Your task to perform on an android device: open app "Adobe Acrobat Reader" Image 0: 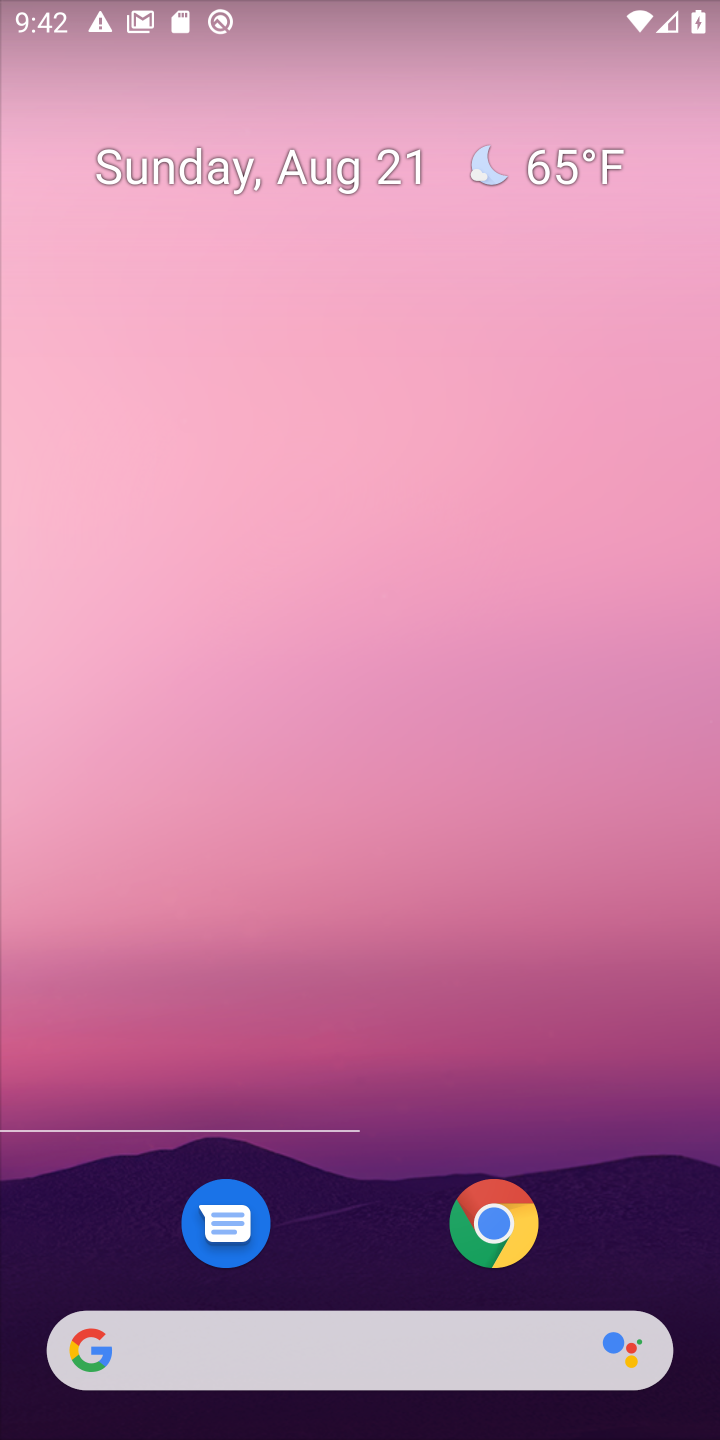
Step 0: press home button
Your task to perform on an android device: open app "Adobe Acrobat Reader" Image 1: 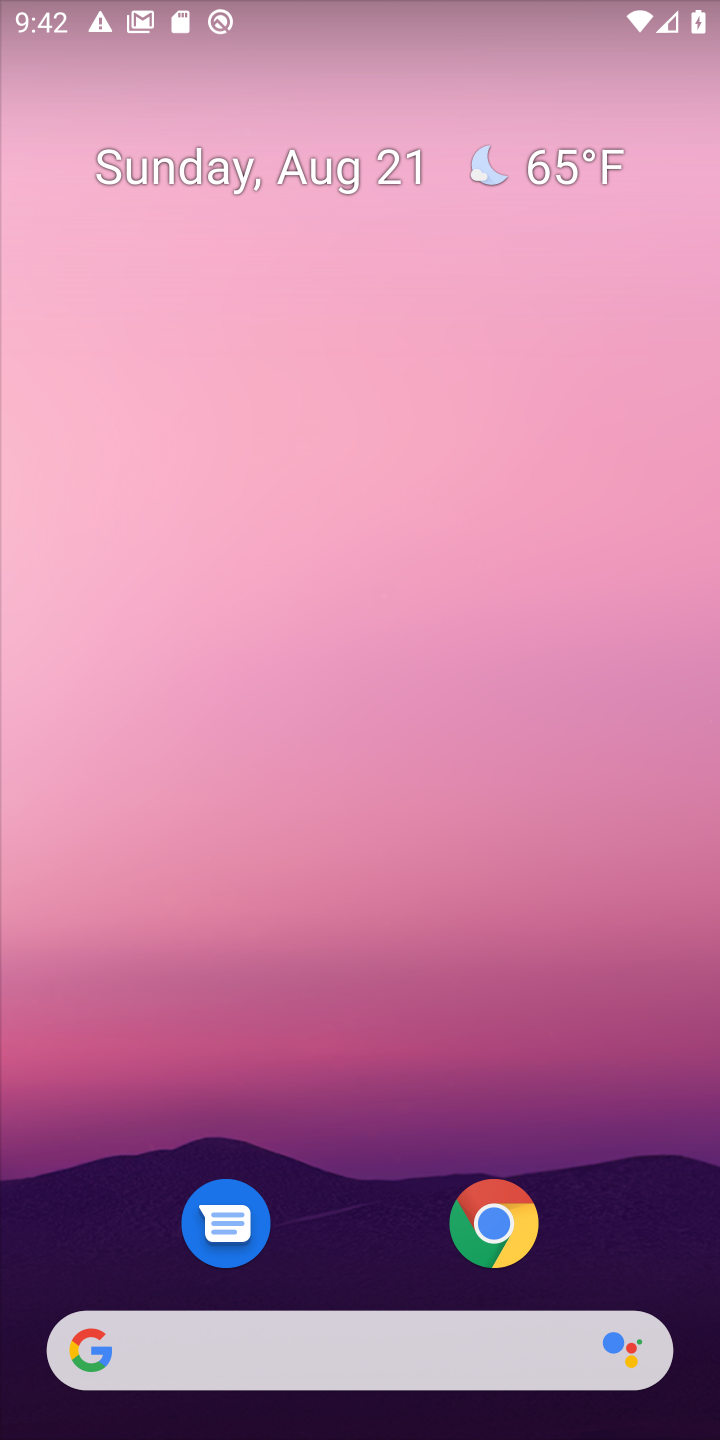
Step 1: drag from (628, 1227) to (677, 111)
Your task to perform on an android device: open app "Adobe Acrobat Reader" Image 2: 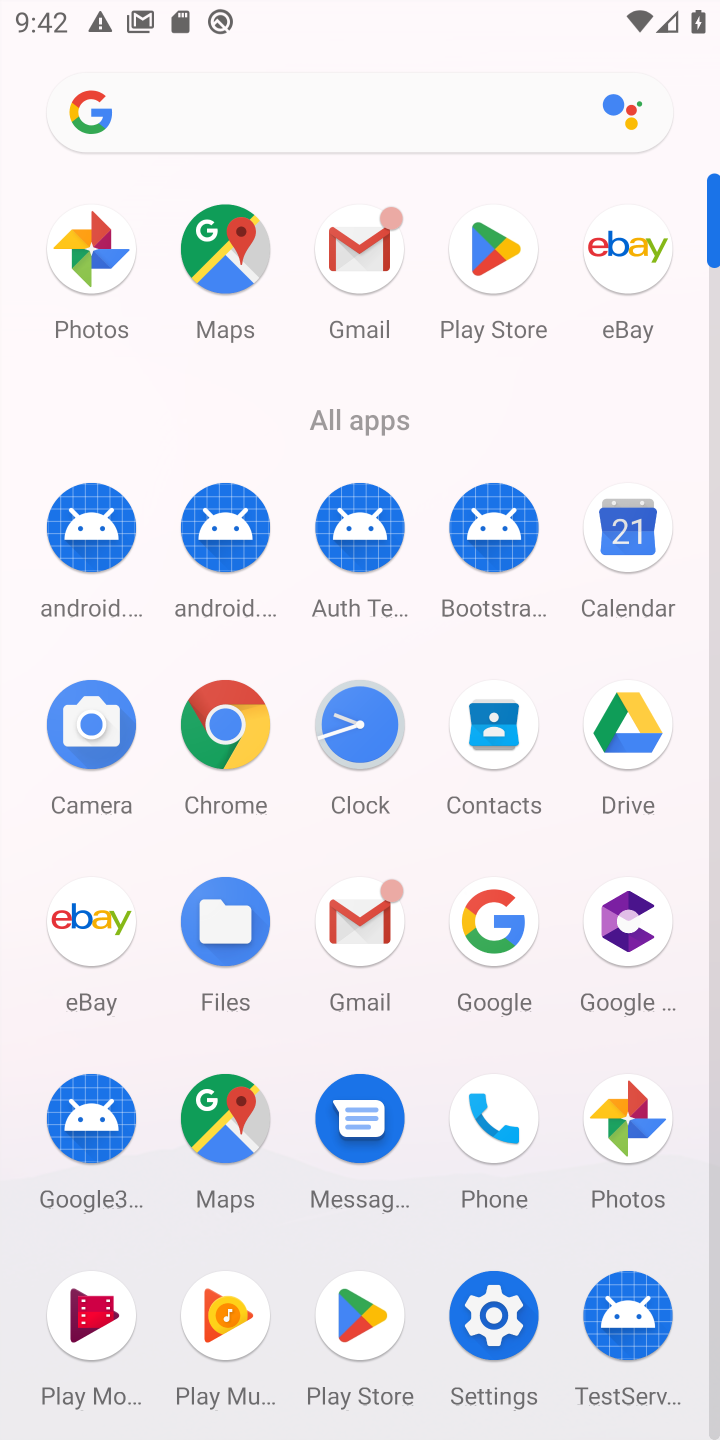
Step 2: click (495, 257)
Your task to perform on an android device: open app "Adobe Acrobat Reader" Image 3: 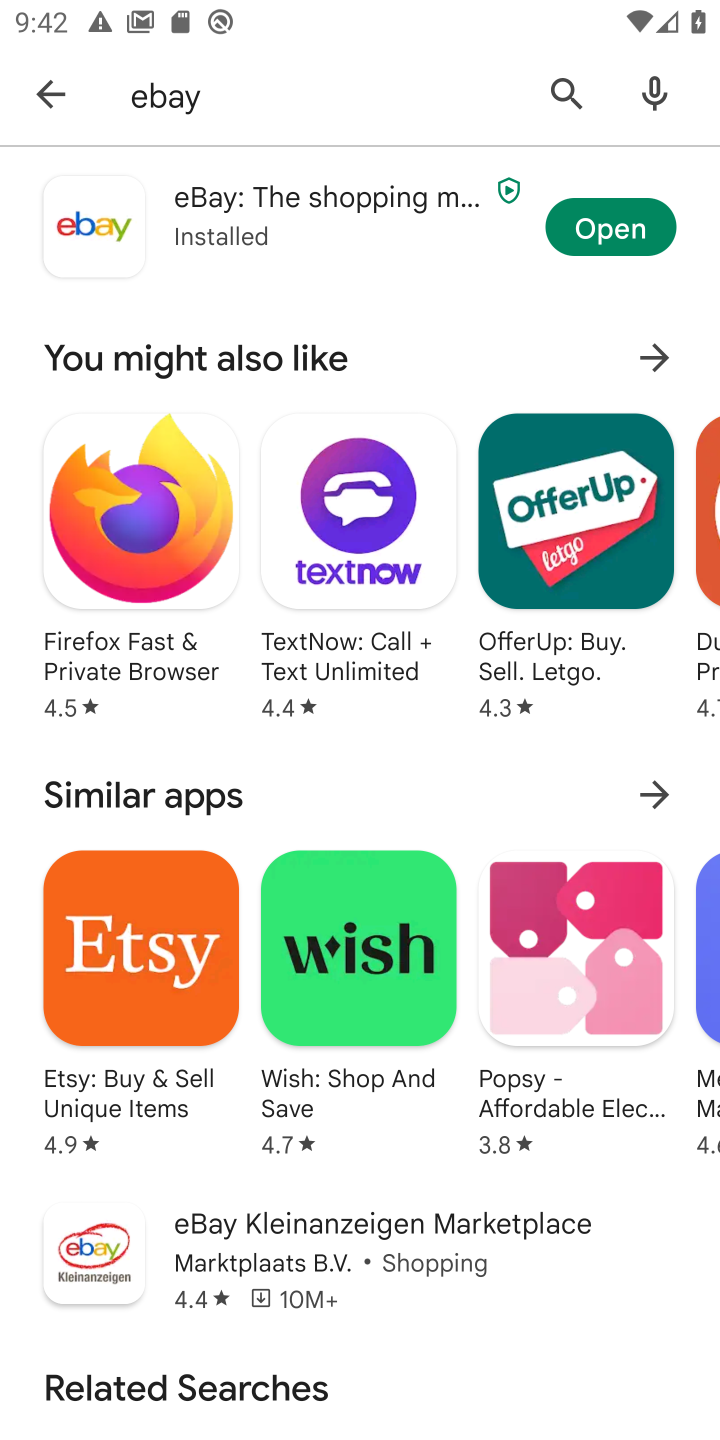
Step 3: press back button
Your task to perform on an android device: open app "Adobe Acrobat Reader" Image 4: 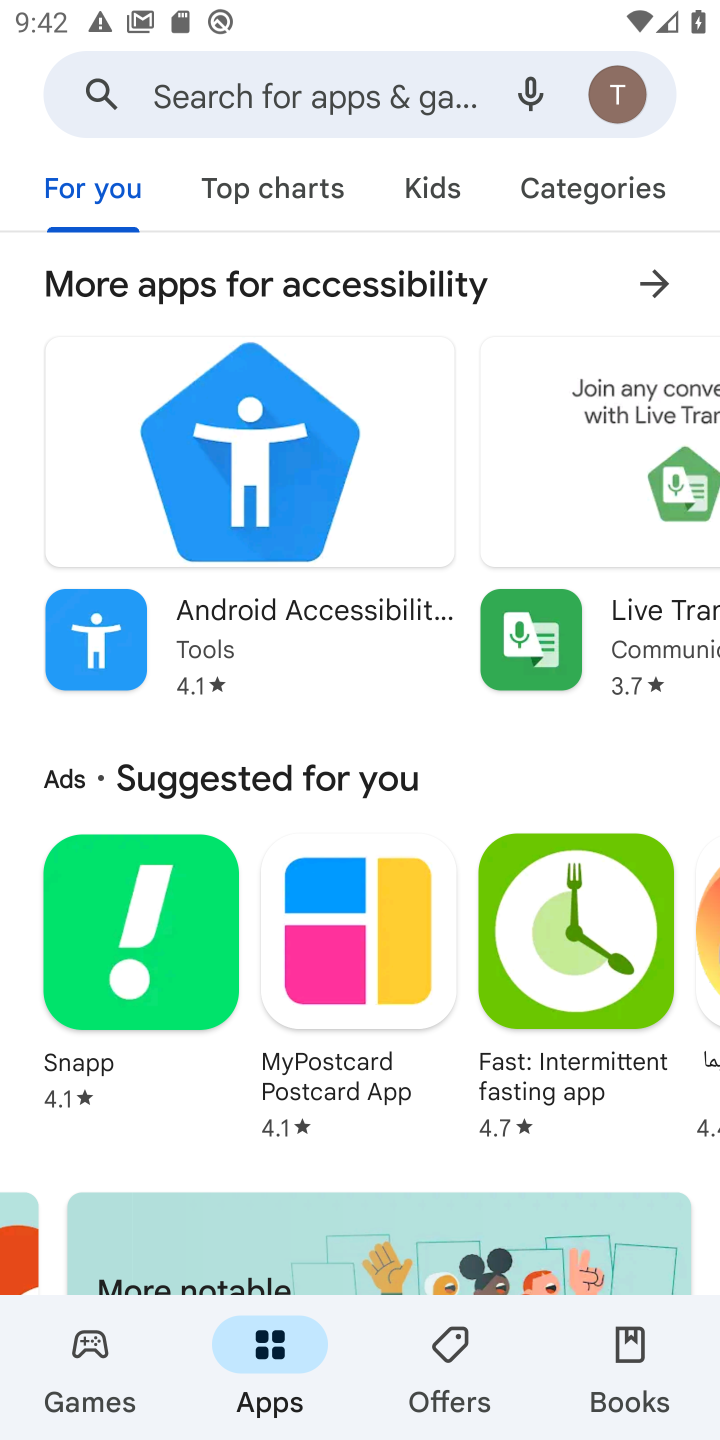
Step 4: click (336, 82)
Your task to perform on an android device: open app "Adobe Acrobat Reader" Image 5: 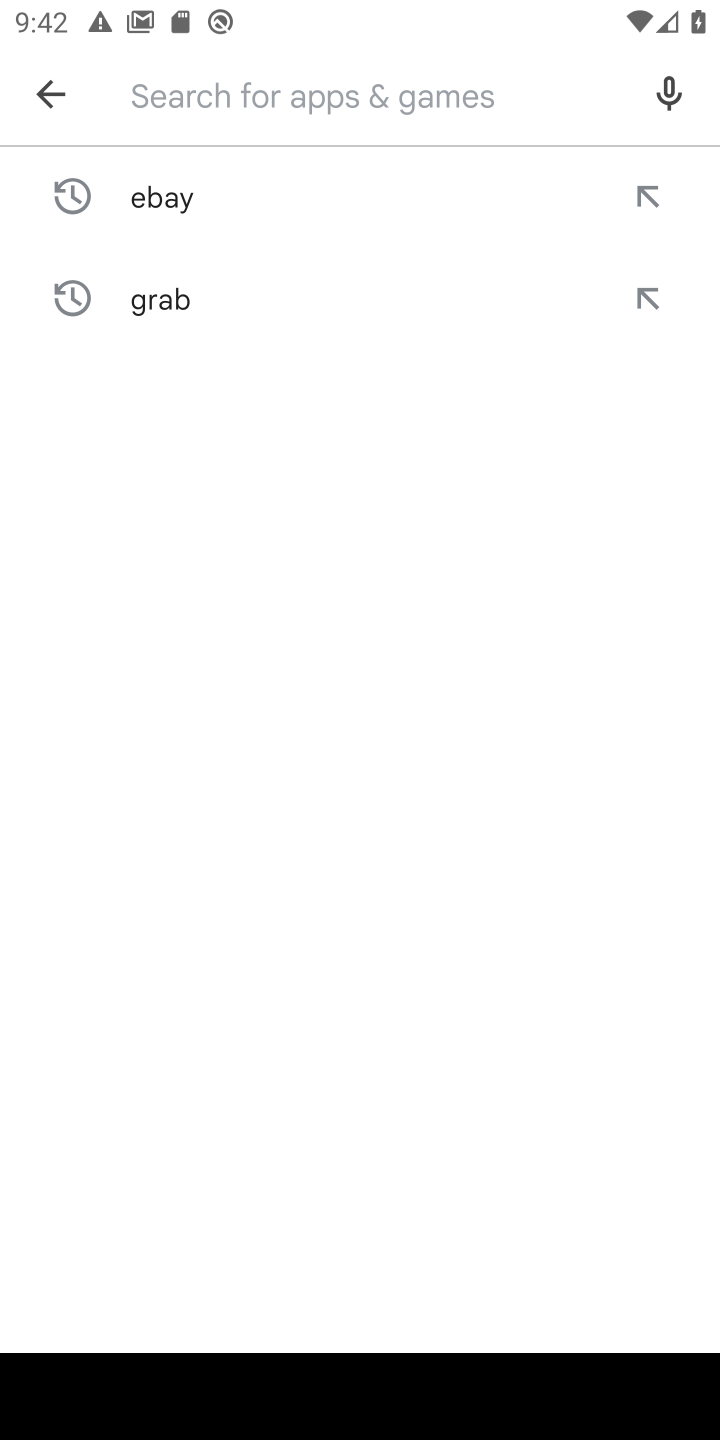
Step 5: type "Adobe Acrobat Reader"
Your task to perform on an android device: open app "Adobe Acrobat Reader" Image 6: 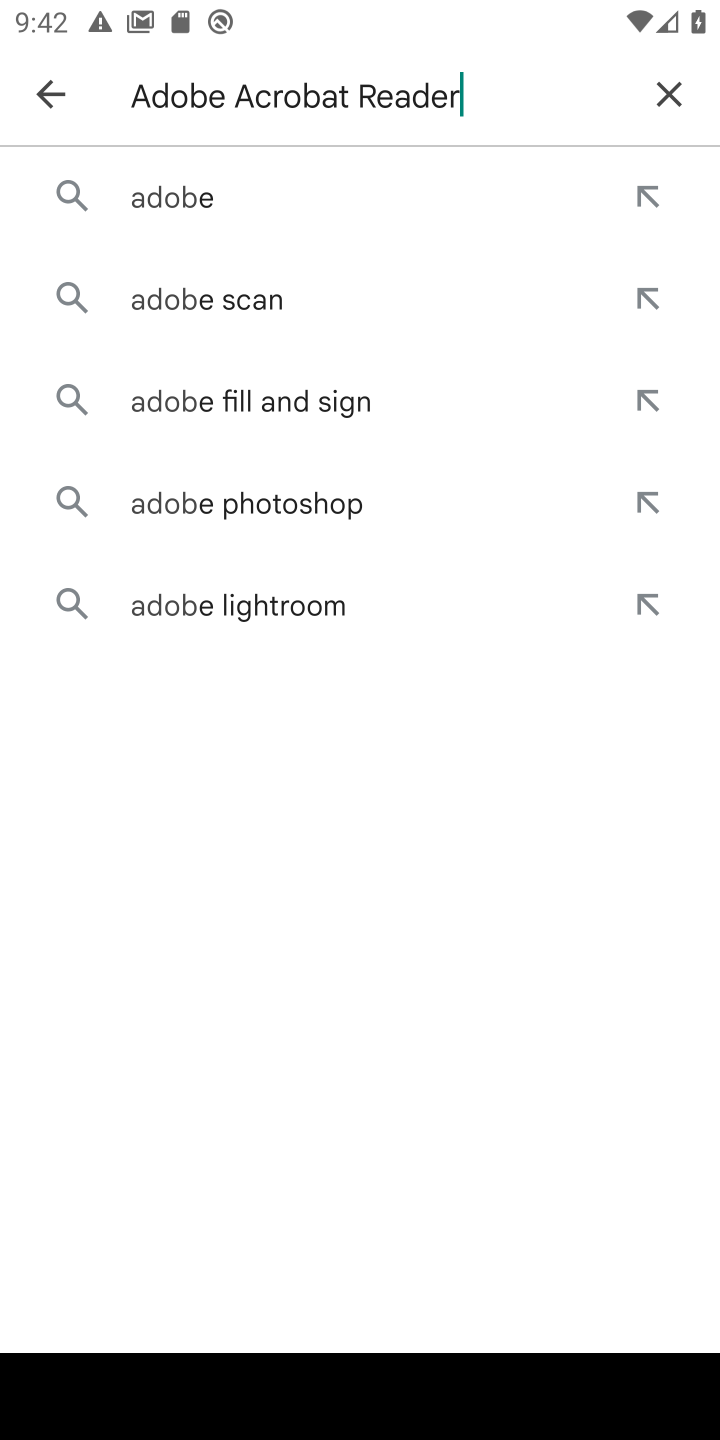
Step 6: press enter
Your task to perform on an android device: open app "Adobe Acrobat Reader" Image 7: 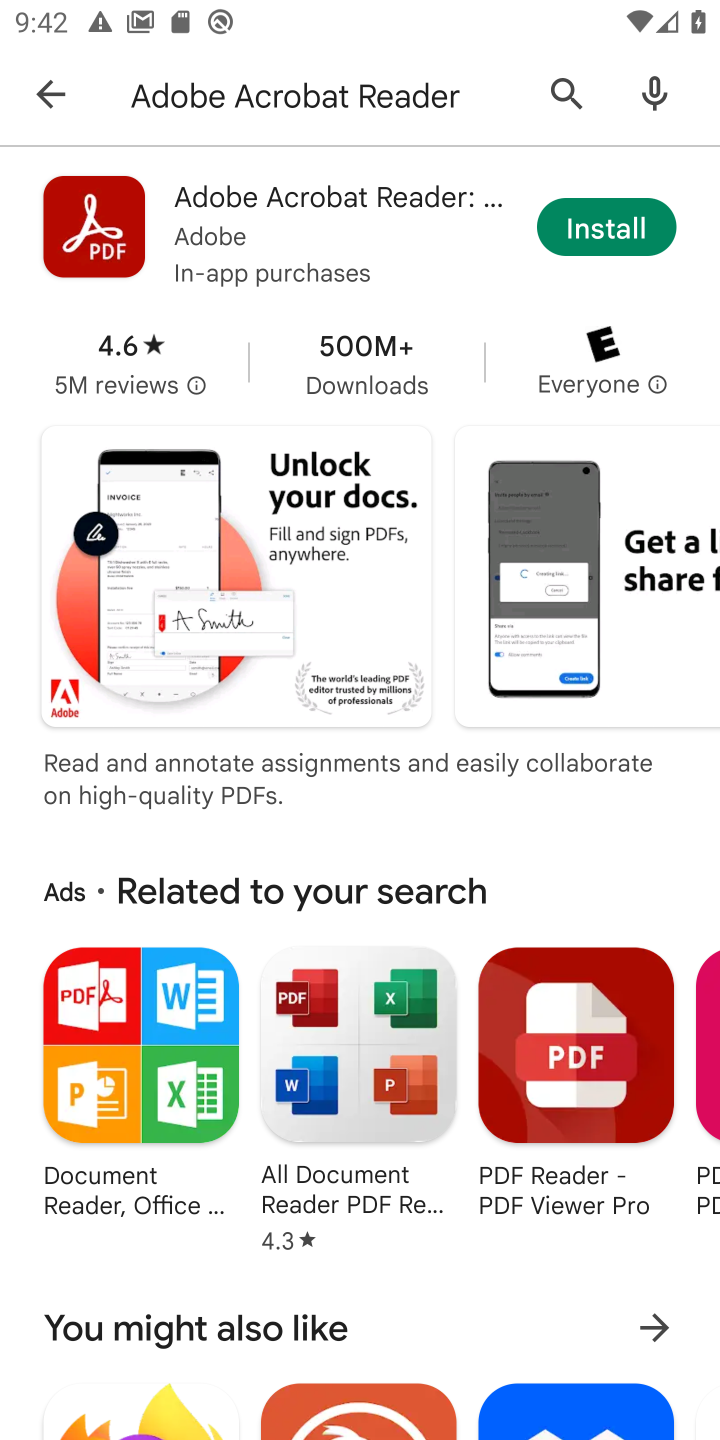
Step 7: task complete